Your task to perform on an android device: Find coffee shops on Maps Image 0: 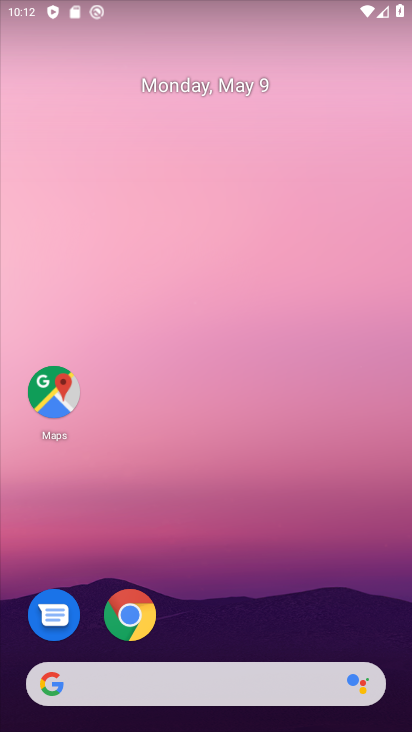
Step 0: click (54, 387)
Your task to perform on an android device: Find coffee shops on Maps Image 1: 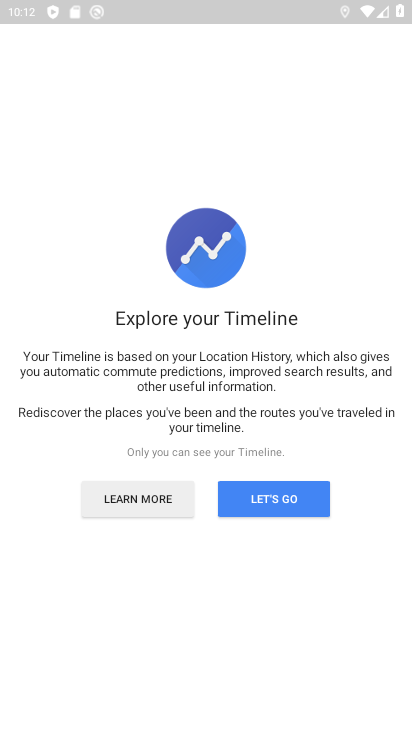
Step 1: click (277, 501)
Your task to perform on an android device: Find coffee shops on Maps Image 2: 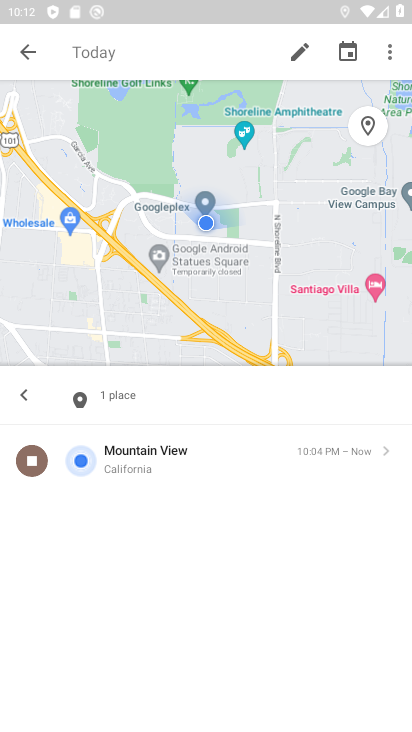
Step 2: click (300, 45)
Your task to perform on an android device: Find coffee shops on Maps Image 3: 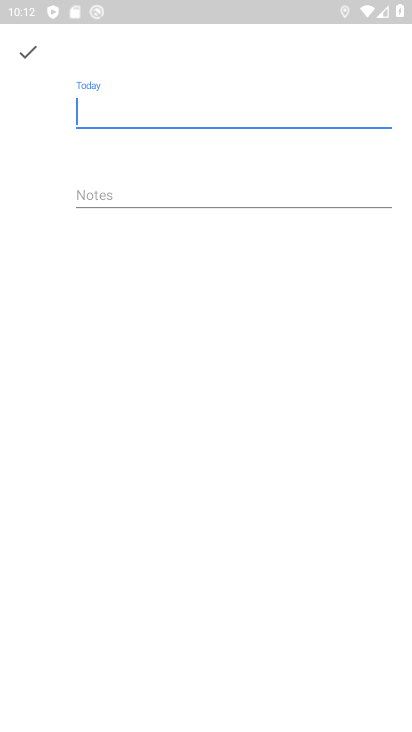
Step 3: click (27, 48)
Your task to perform on an android device: Find coffee shops on Maps Image 4: 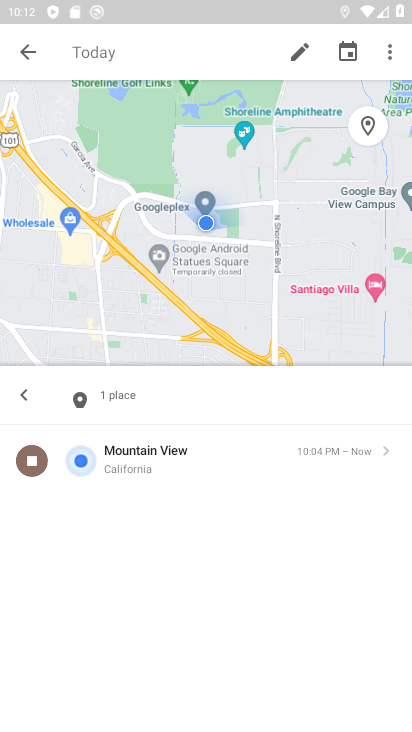
Step 4: click (26, 53)
Your task to perform on an android device: Find coffee shops on Maps Image 5: 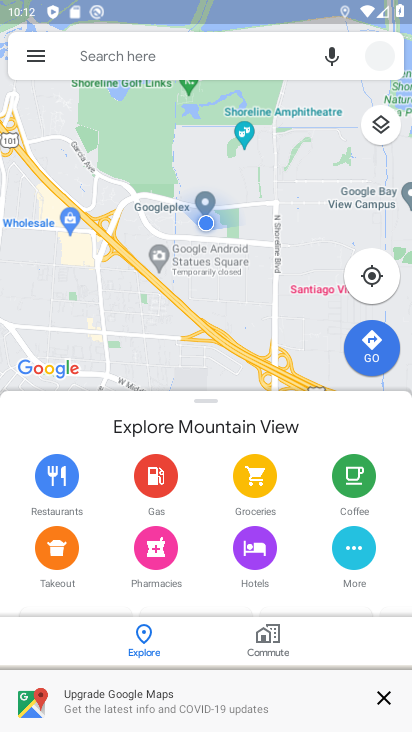
Step 5: click (142, 52)
Your task to perform on an android device: Find coffee shops on Maps Image 6: 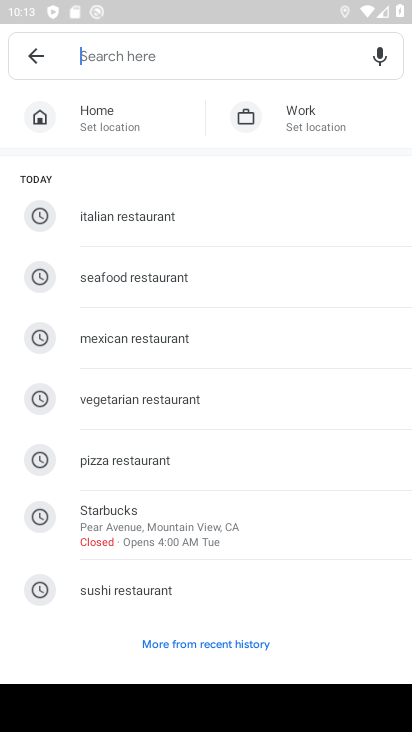
Step 6: type "coffee shops"
Your task to perform on an android device: Find coffee shops on Maps Image 7: 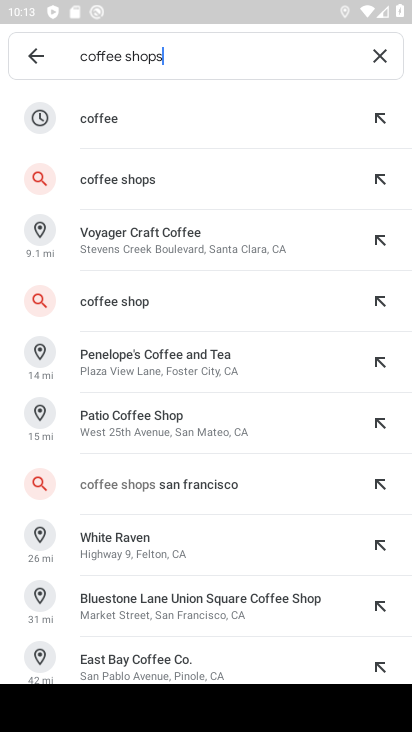
Step 7: click (114, 176)
Your task to perform on an android device: Find coffee shops on Maps Image 8: 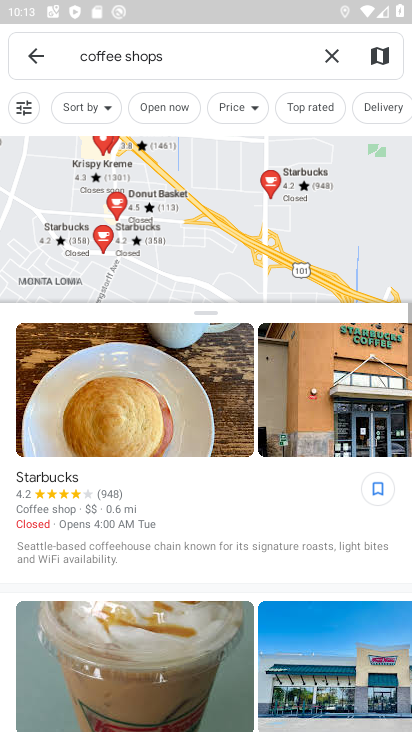
Step 8: task complete